Your task to perform on an android device: Open Google Maps Image 0: 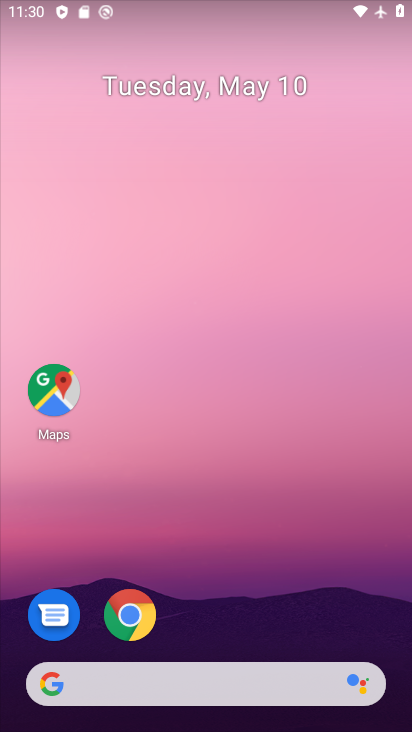
Step 0: drag from (240, 465) to (206, 11)
Your task to perform on an android device: Open Google Maps Image 1: 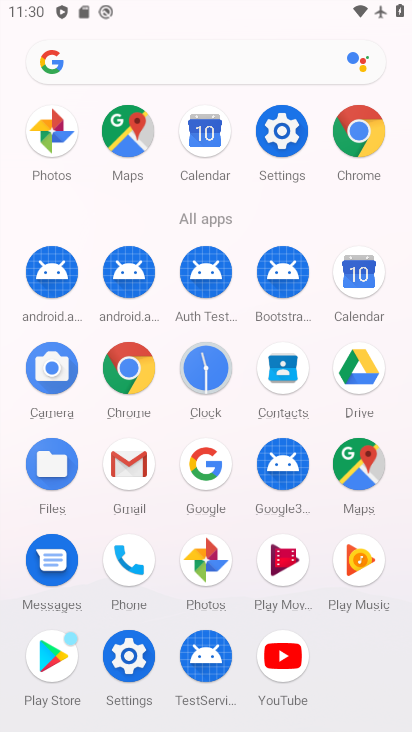
Step 1: click (359, 462)
Your task to perform on an android device: Open Google Maps Image 2: 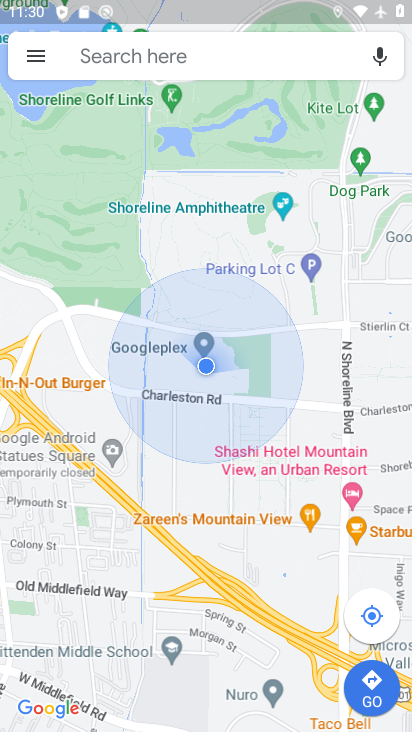
Step 2: task complete